Your task to perform on an android device: When is my next appointment? Image 0: 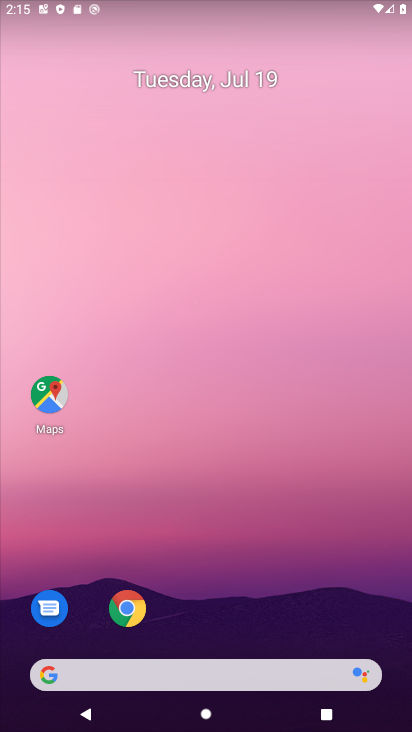
Step 0: drag from (281, 593) to (170, 32)
Your task to perform on an android device: When is my next appointment? Image 1: 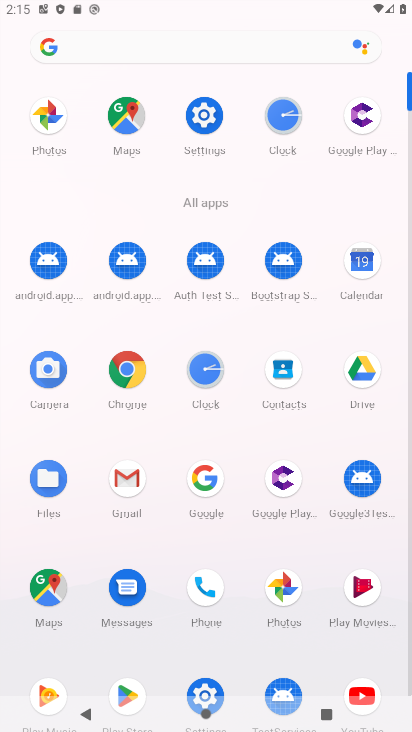
Step 1: click (350, 258)
Your task to perform on an android device: When is my next appointment? Image 2: 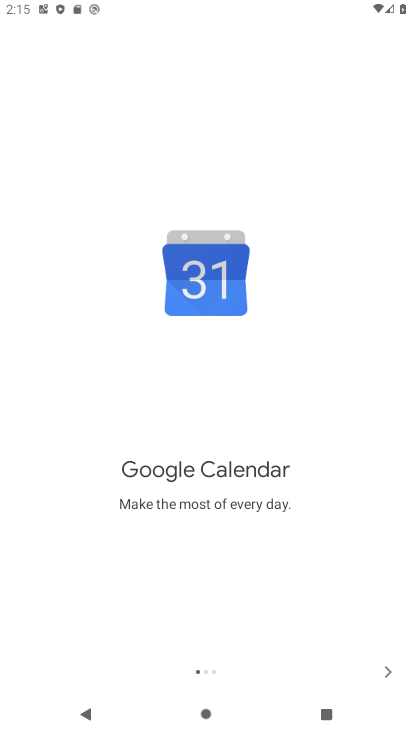
Step 2: click (389, 671)
Your task to perform on an android device: When is my next appointment? Image 3: 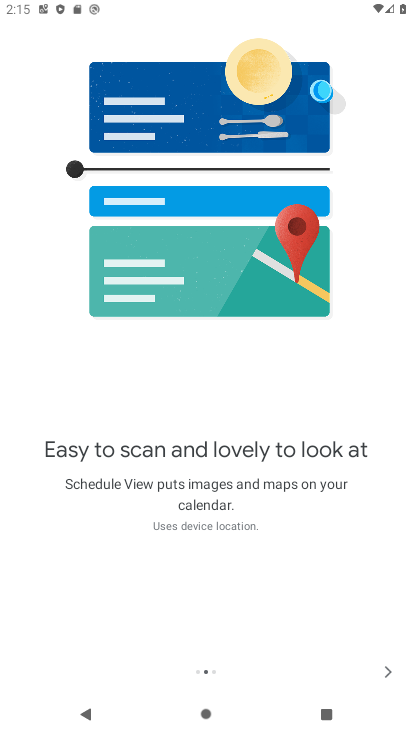
Step 3: click (389, 671)
Your task to perform on an android device: When is my next appointment? Image 4: 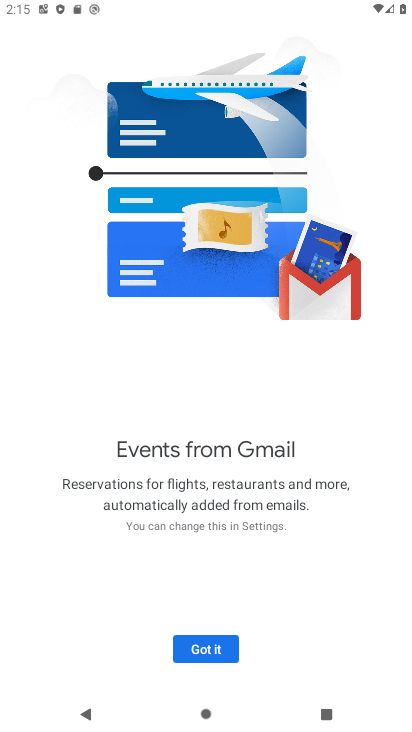
Step 4: click (389, 671)
Your task to perform on an android device: When is my next appointment? Image 5: 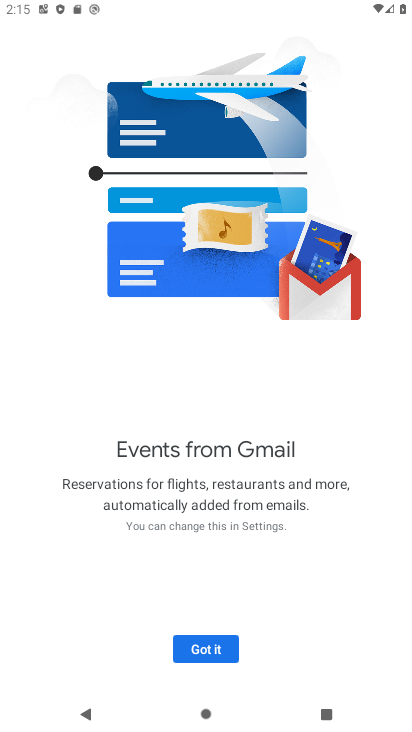
Step 5: click (230, 654)
Your task to perform on an android device: When is my next appointment? Image 6: 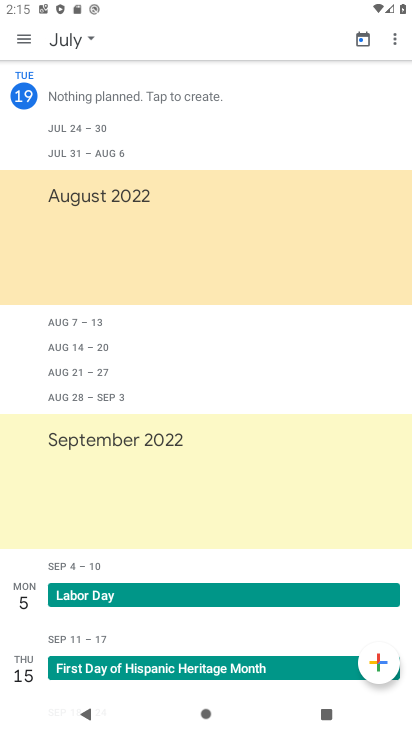
Step 6: click (22, 23)
Your task to perform on an android device: When is my next appointment? Image 7: 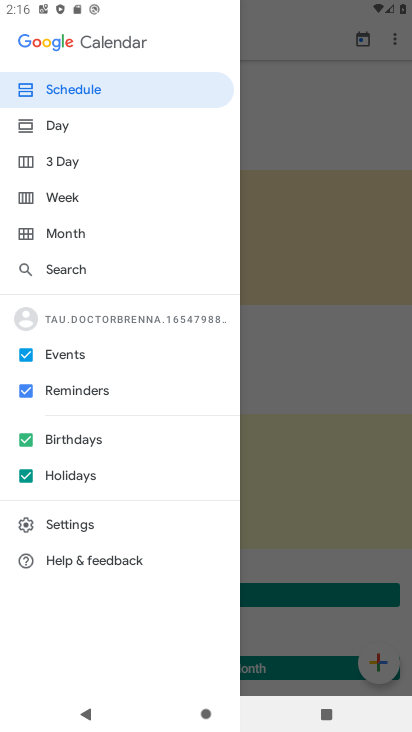
Step 7: click (253, 177)
Your task to perform on an android device: When is my next appointment? Image 8: 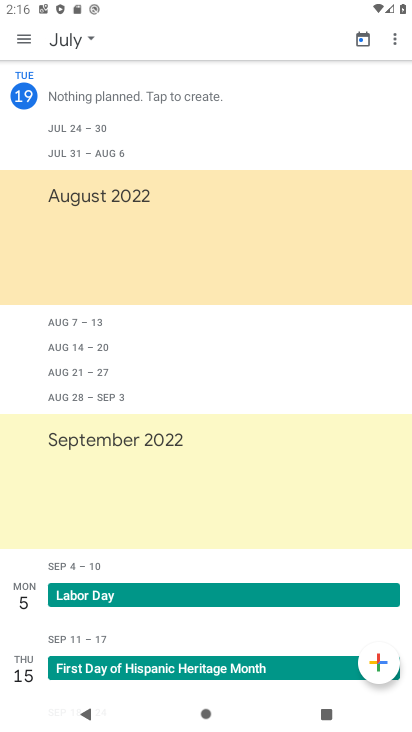
Step 8: task complete